Your task to perform on an android device: change keyboard looks Image 0: 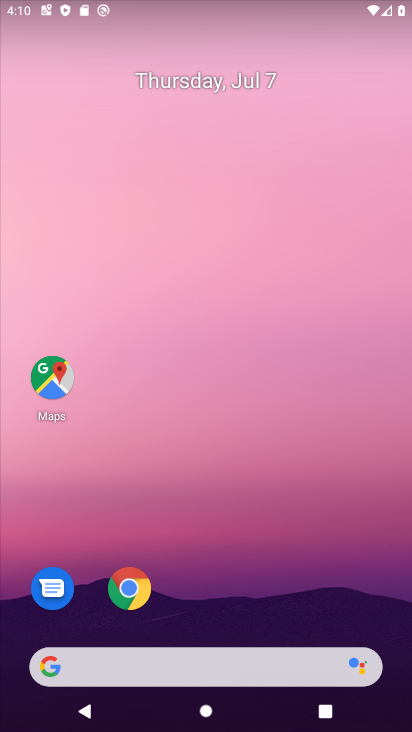
Step 0: press home button
Your task to perform on an android device: change keyboard looks Image 1: 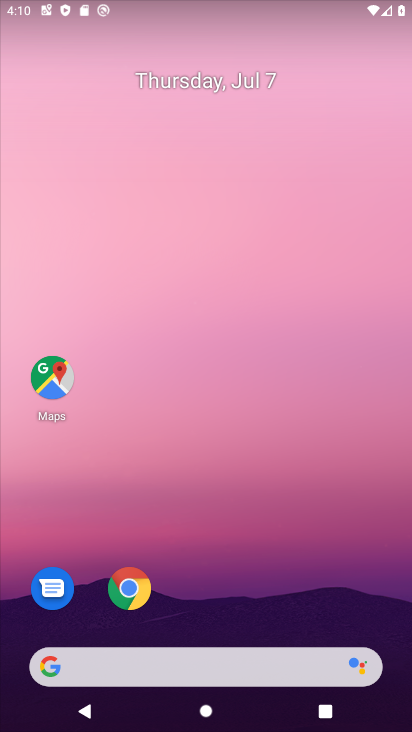
Step 1: drag from (227, 615) to (237, 152)
Your task to perform on an android device: change keyboard looks Image 2: 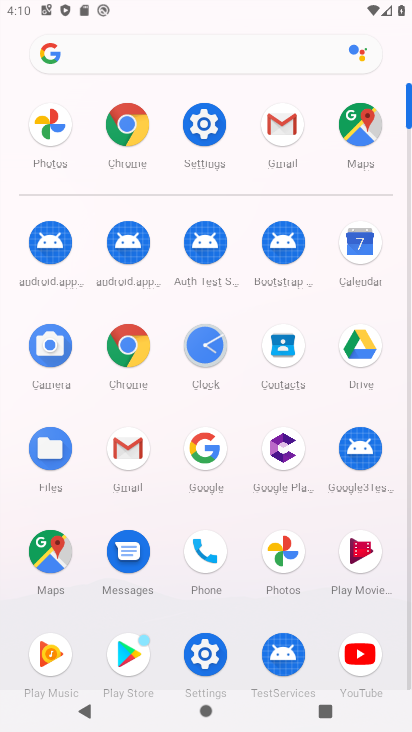
Step 2: click (206, 137)
Your task to perform on an android device: change keyboard looks Image 3: 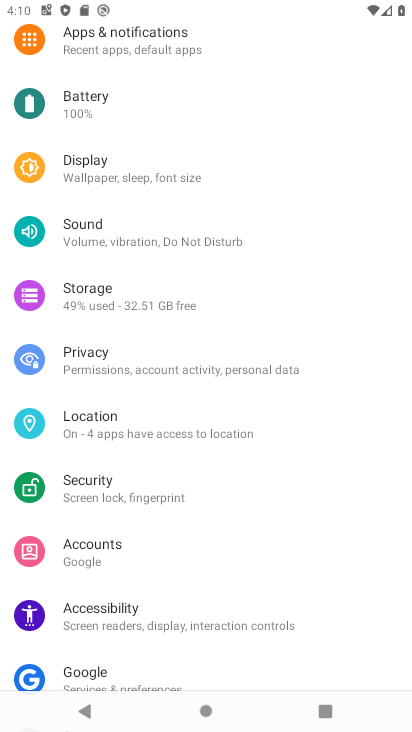
Step 3: drag from (187, 639) to (230, 167)
Your task to perform on an android device: change keyboard looks Image 4: 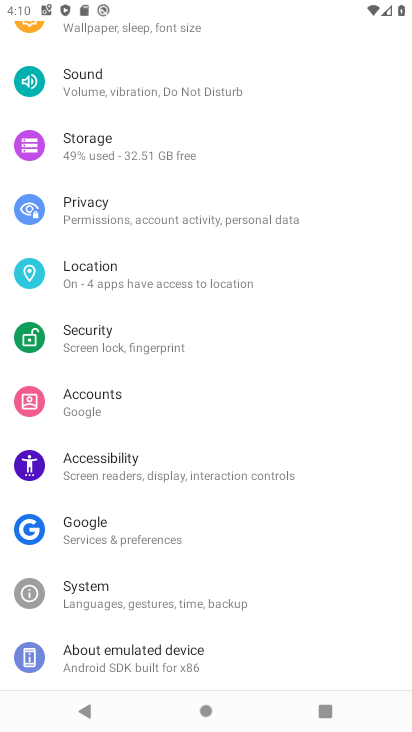
Step 4: click (121, 599)
Your task to perform on an android device: change keyboard looks Image 5: 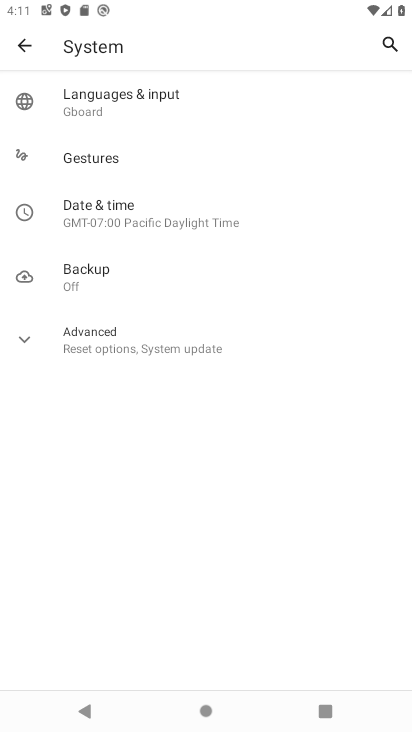
Step 5: click (110, 89)
Your task to perform on an android device: change keyboard looks Image 6: 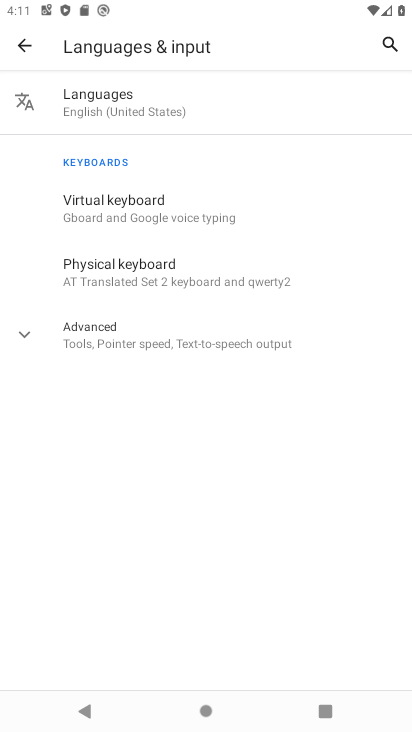
Step 6: click (91, 213)
Your task to perform on an android device: change keyboard looks Image 7: 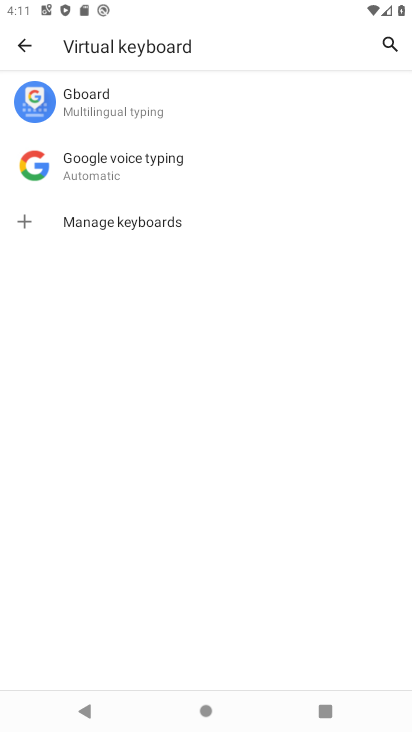
Step 7: click (87, 114)
Your task to perform on an android device: change keyboard looks Image 8: 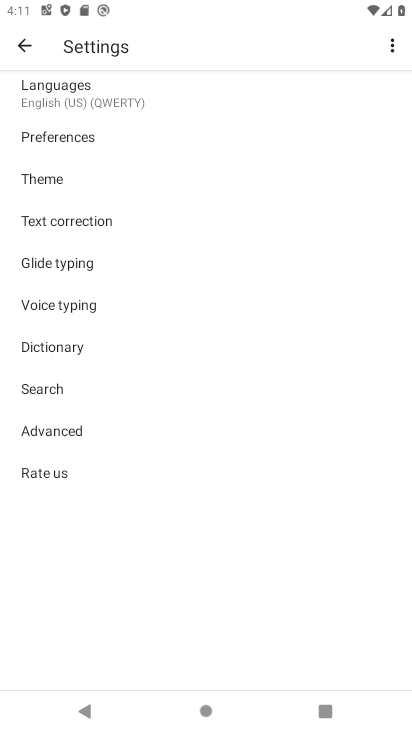
Step 8: click (42, 181)
Your task to perform on an android device: change keyboard looks Image 9: 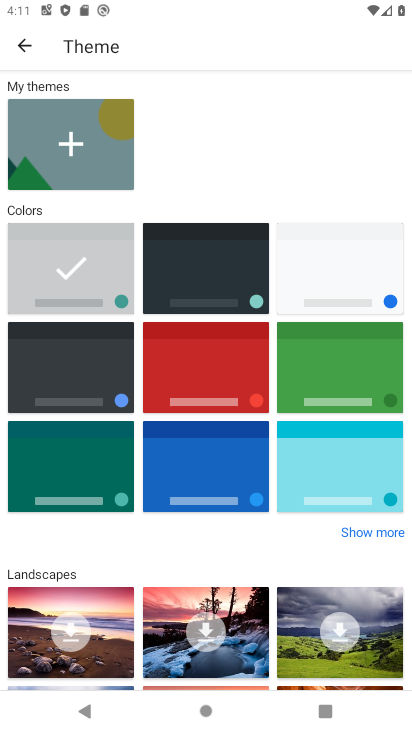
Step 9: click (206, 295)
Your task to perform on an android device: change keyboard looks Image 10: 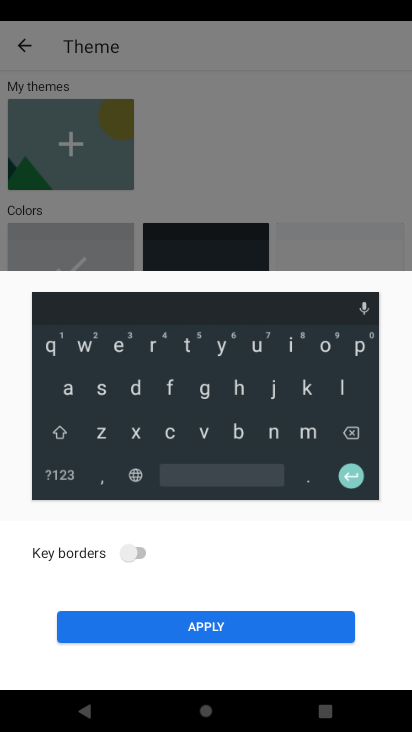
Step 10: click (243, 625)
Your task to perform on an android device: change keyboard looks Image 11: 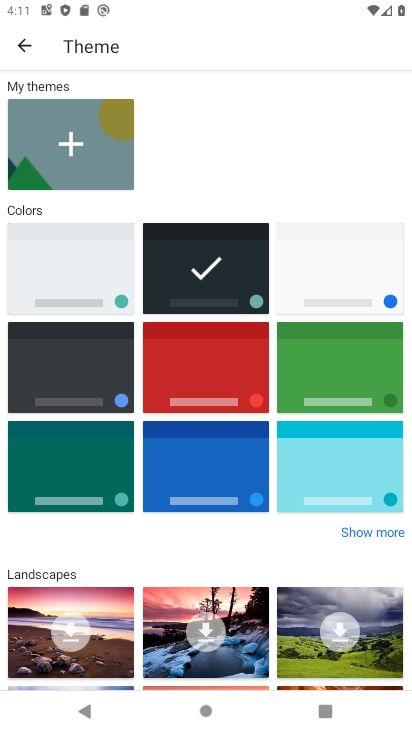
Step 11: task complete